Your task to perform on an android device: Go to sound settings Image 0: 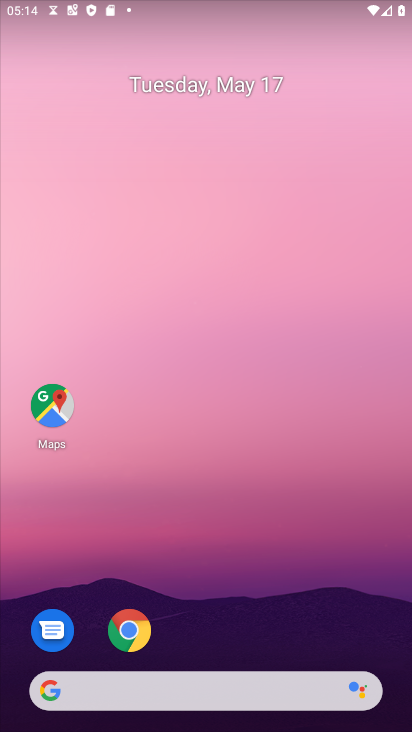
Step 0: drag from (247, 601) to (237, 114)
Your task to perform on an android device: Go to sound settings Image 1: 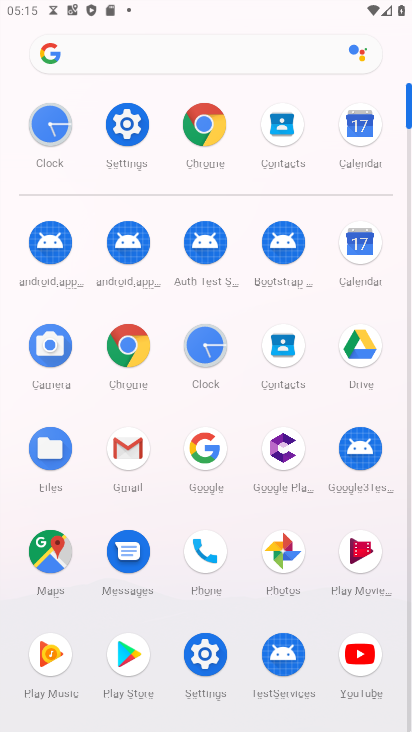
Step 1: click (135, 134)
Your task to perform on an android device: Go to sound settings Image 2: 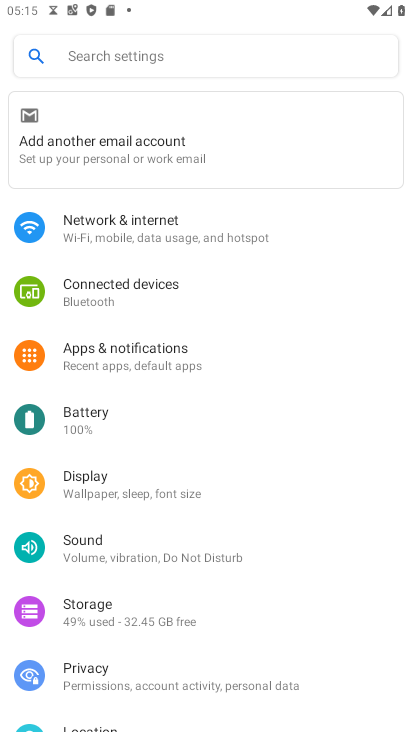
Step 2: click (76, 548)
Your task to perform on an android device: Go to sound settings Image 3: 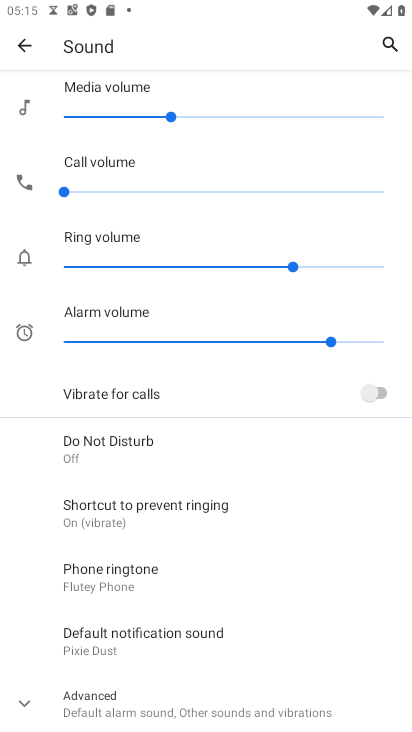
Step 3: task complete